Your task to perform on an android device: change text size in settings app Image 0: 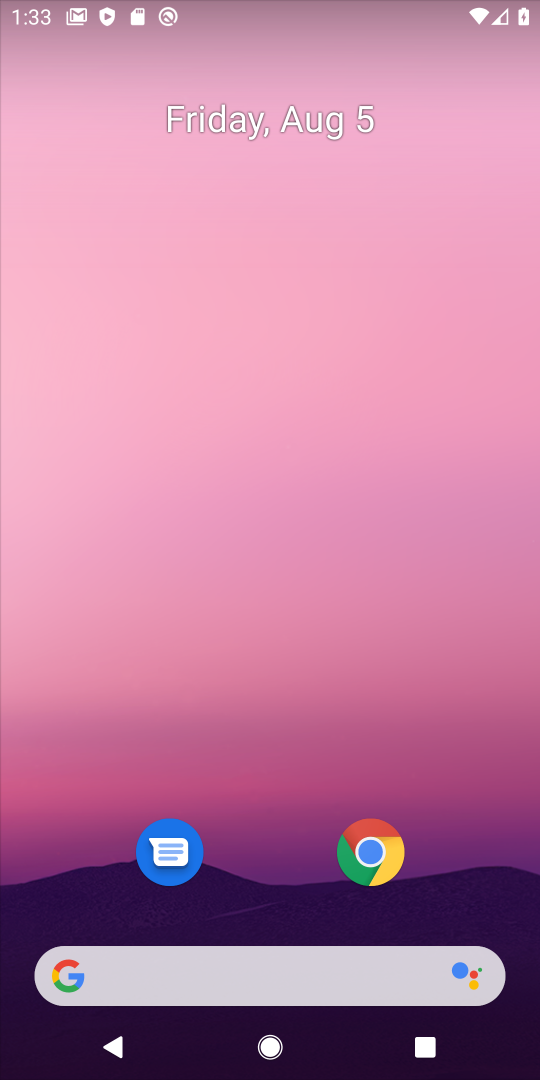
Step 0: drag from (267, 804) to (253, 150)
Your task to perform on an android device: change text size in settings app Image 1: 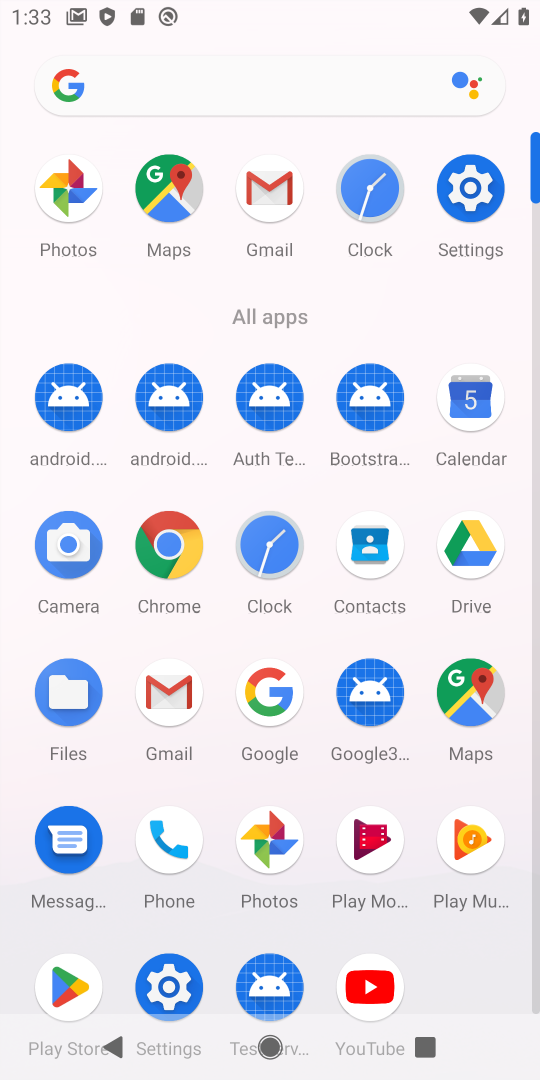
Step 1: click (472, 187)
Your task to perform on an android device: change text size in settings app Image 2: 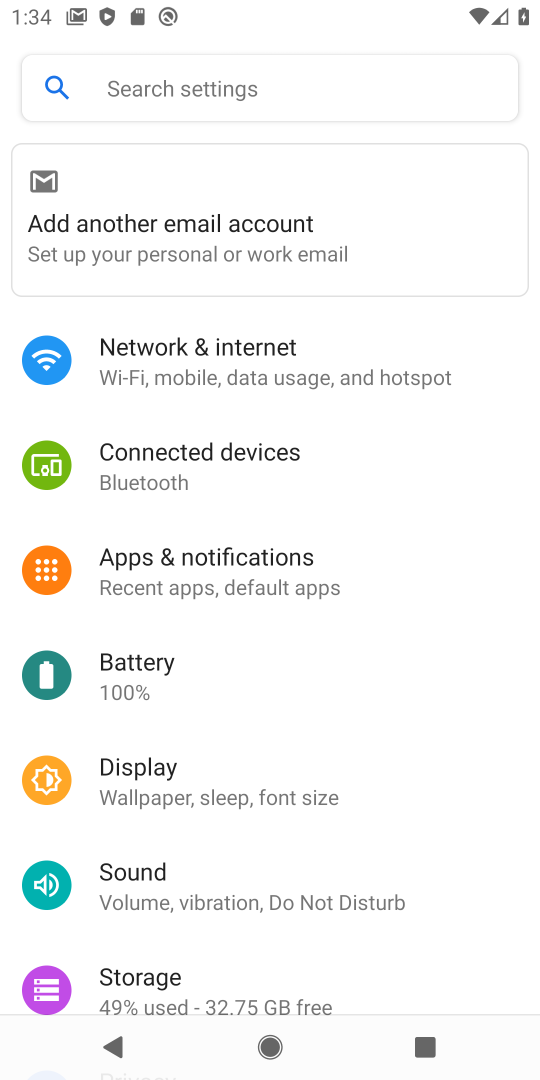
Step 2: click (150, 775)
Your task to perform on an android device: change text size in settings app Image 3: 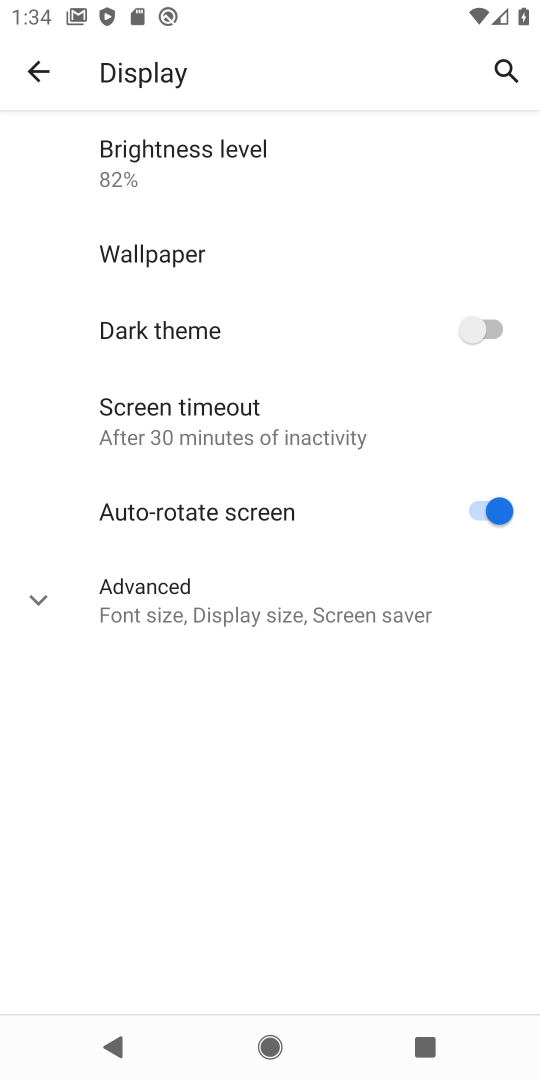
Step 3: click (87, 600)
Your task to perform on an android device: change text size in settings app Image 4: 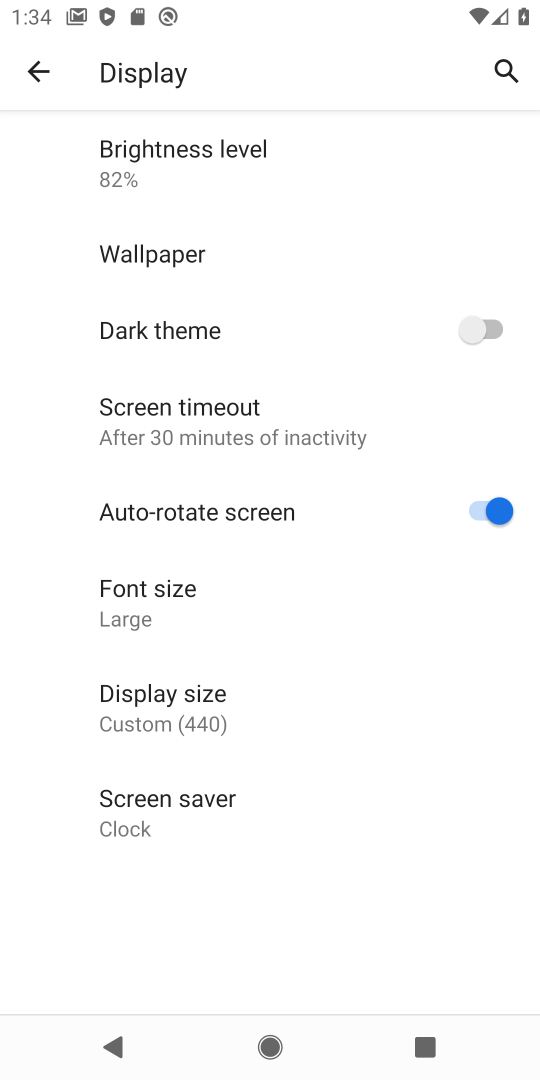
Step 4: click (164, 591)
Your task to perform on an android device: change text size in settings app Image 5: 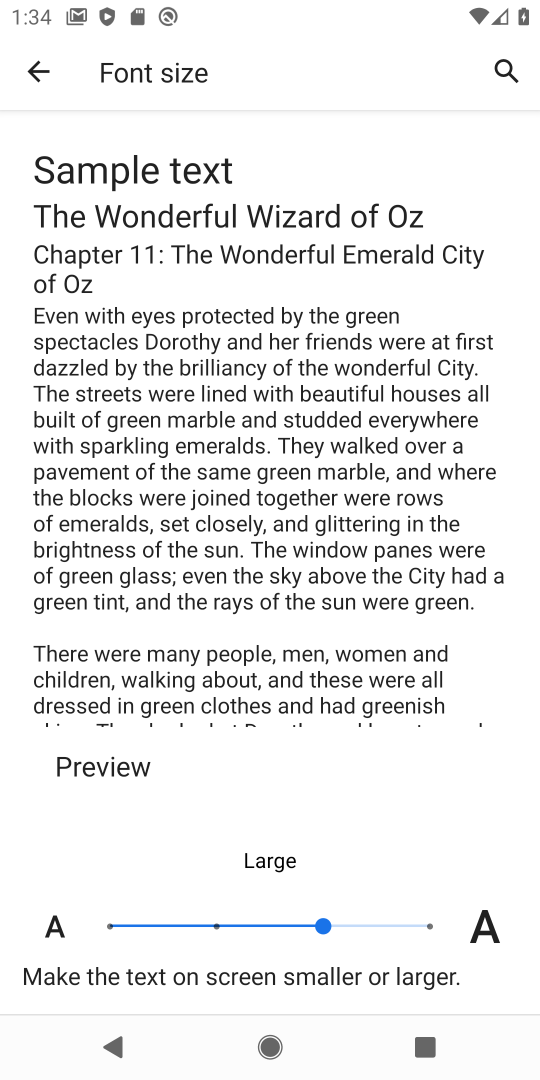
Step 5: click (224, 922)
Your task to perform on an android device: change text size in settings app Image 6: 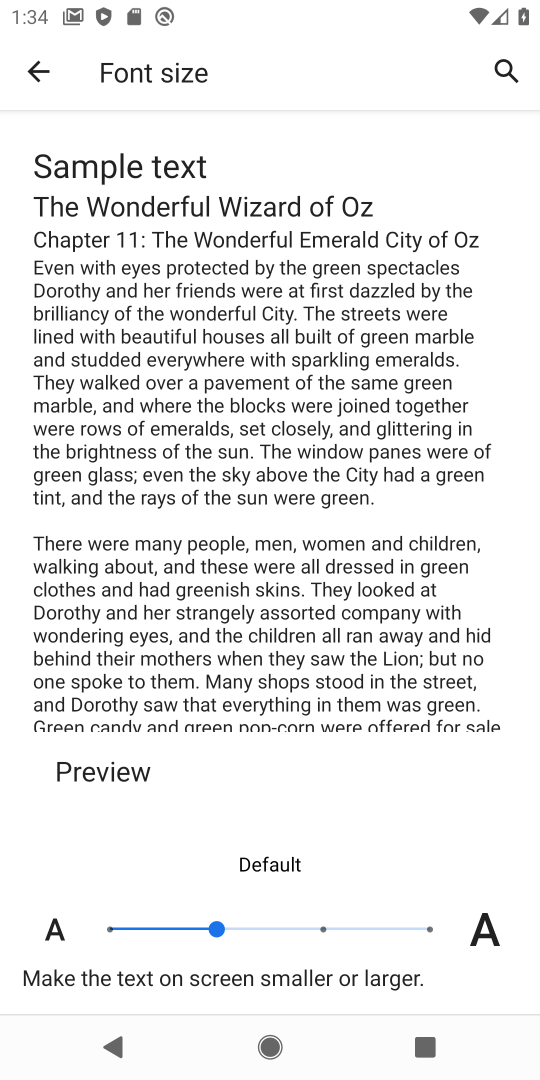
Step 6: task complete